Your task to perform on an android device: Open Google Chrome and open the bookmarks view Image 0: 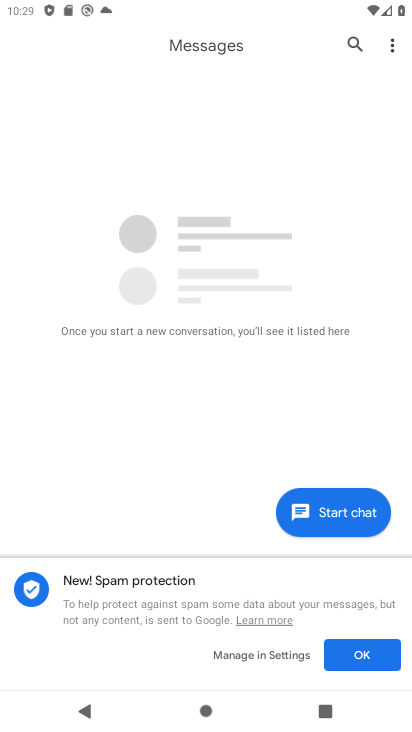
Step 0: press home button
Your task to perform on an android device: Open Google Chrome and open the bookmarks view Image 1: 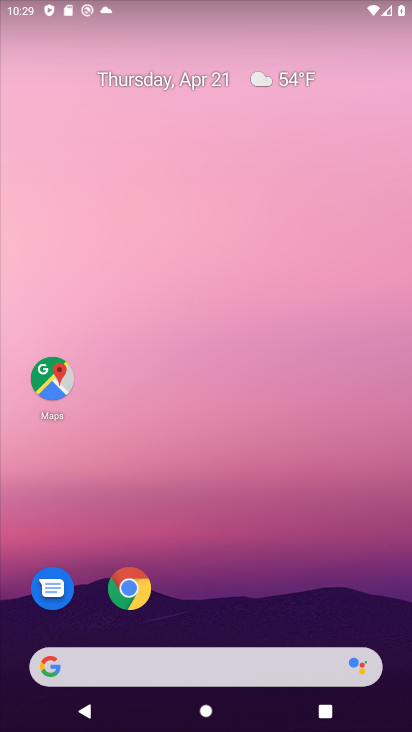
Step 1: click (138, 600)
Your task to perform on an android device: Open Google Chrome and open the bookmarks view Image 2: 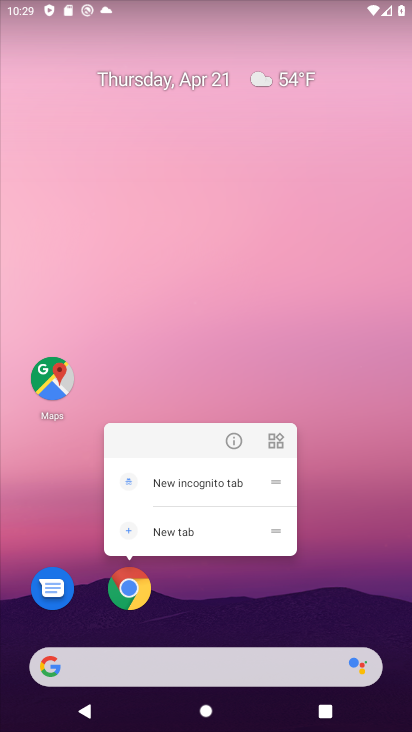
Step 2: click (142, 588)
Your task to perform on an android device: Open Google Chrome and open the bookmarks view Image 3: 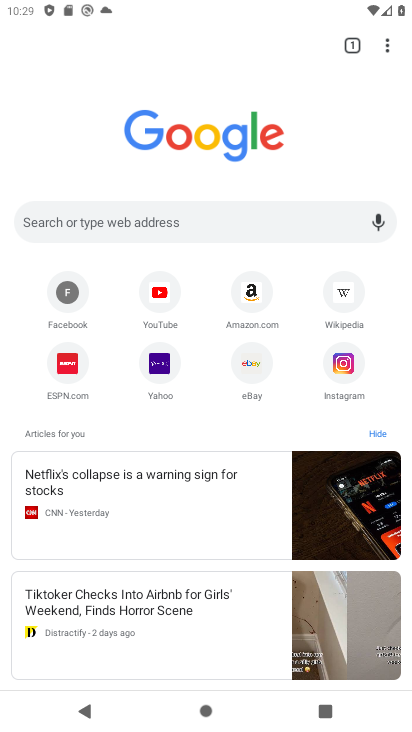
Step 3: click (386, 54)
Your task to perform on an android device: Open Google Chrome and open the bookmarks view Image 4: 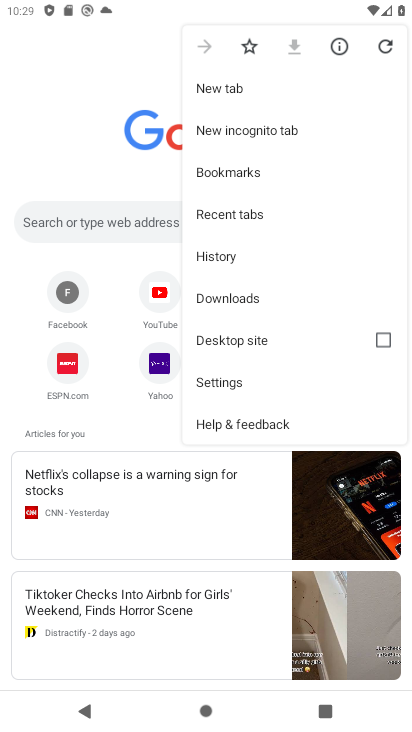
Step 4: click (235, 167)
Your task to perform on an android device: Open Google Chrome and open the bookmarks view Image 5: 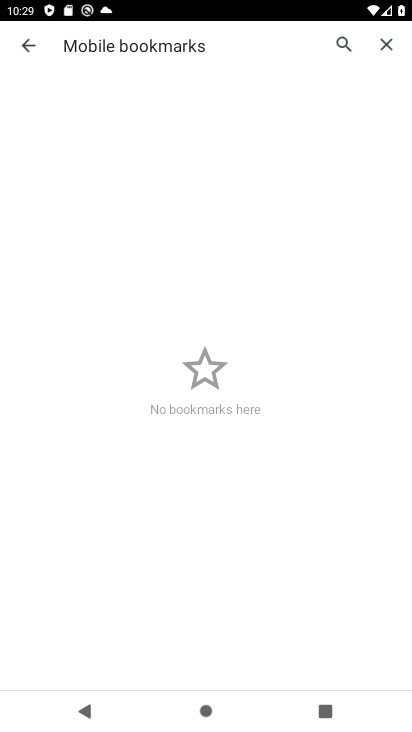
Step 5: task complete